Your task to perform on an android device: open app "LiveIn - Share Your Moment" (install if not already installed) and enter user name: "certifies@gmail.com" and password: "compartmented" Image 0: 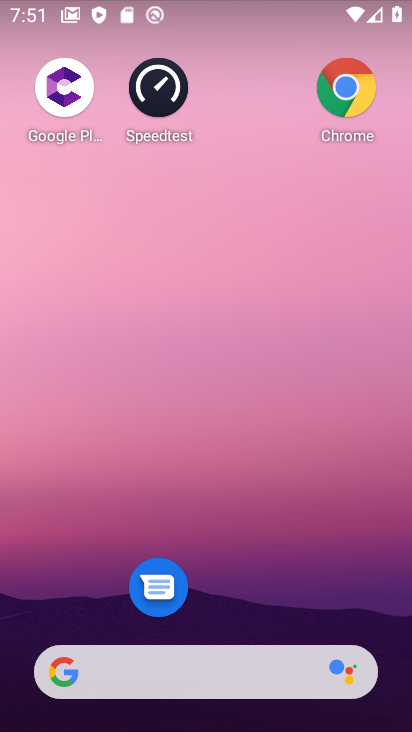
Step 0: drag from (266, 444) to (283, 125)
Your task to perform on an android device: open app "LiveIn - Share Your Moment" (install if not already installed) and enter user name: "certifies@gmail.com" and password: "compartmented" Image 1: 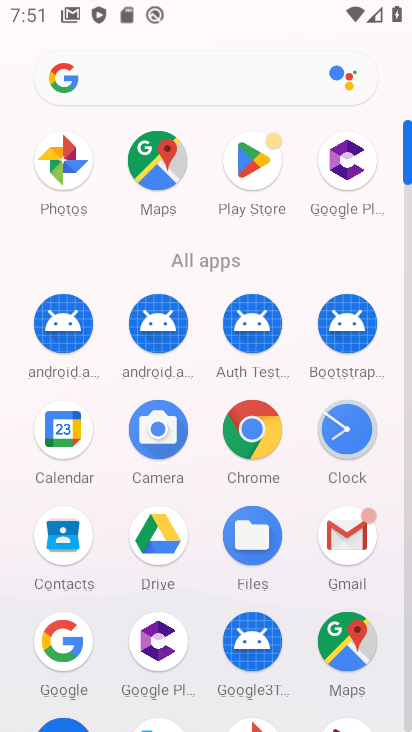
Step 1: click (251, 159)
Your task to perform on an android device: open app "LiveIn - Share Your Moment" (install if not already installed) and enter user name: "certifies@gmail.com" and password: "compartmented" Image 2: 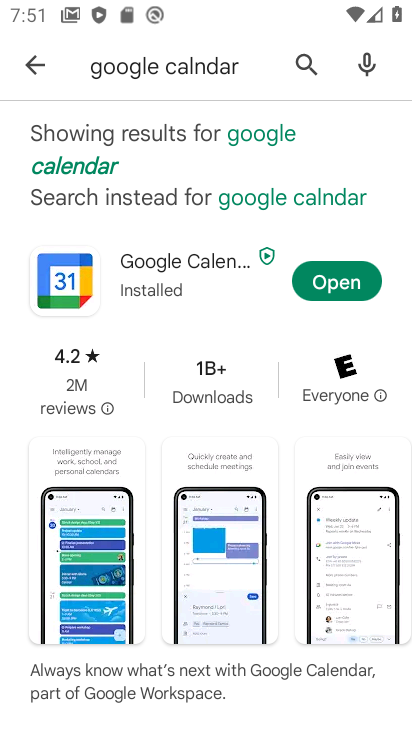
Step 2: click (313, 68)
Your task to perform on an android device: open app "LiveIn - Share Your Moment" (install if not already installed) and enter user name: "certifies@gmail.com" and password: "compartmented" Image 3: 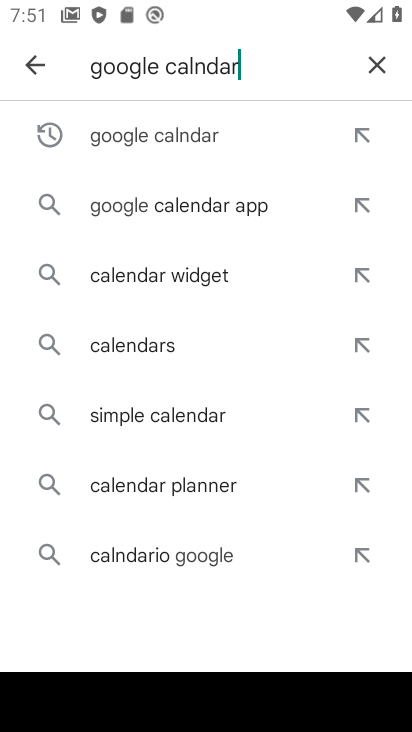
Step 3: click (369, 62)
Your task to perform on an android device: open app "LiveIn - Share Your Moment" (install if not already installed) and enter user name: "certifies@gmail.com" and password: "compartmented" Image 4: 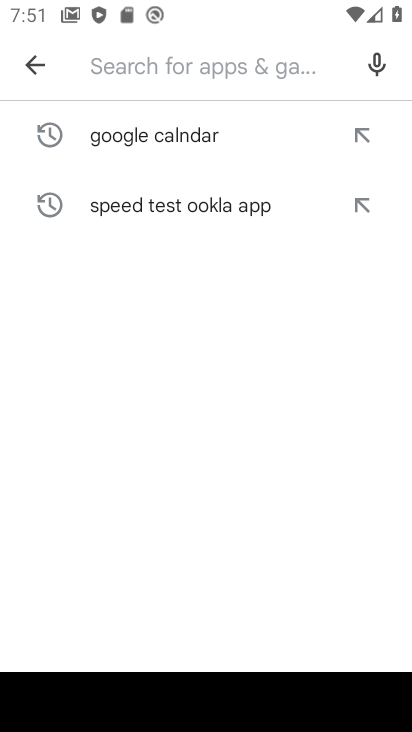
Step 4: type "livein"
Your task to perform on an android device: open app "LiveIn - Share Your Moment" (install if not already installed) and enter user name: "certifies@gmail.com" and password: "compartmented" Image 5: 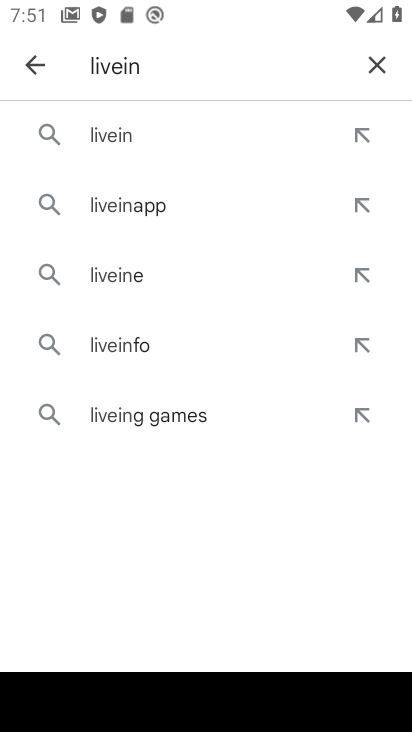
Step 5: click (219, 127)
Your task to perform on an android device: open app "LiveIn - Share Your Moment" (install if not already installed) and enter user name: "certifies@gmail.com" and password: "compartmented" Image 6: 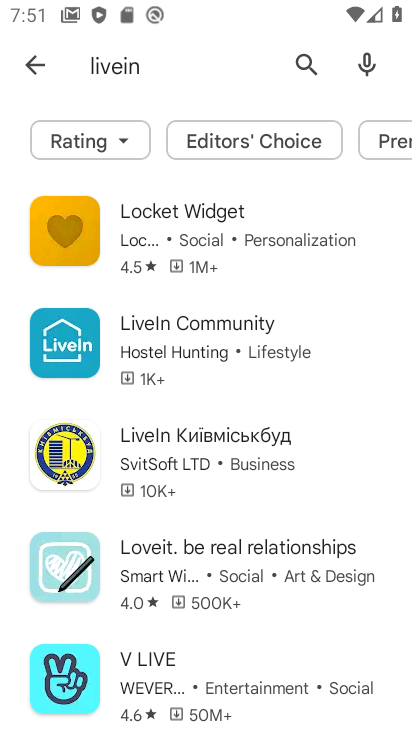
Step 6: click (236, 328)
Your task to perform on an android device: open app "LiveIn - Share Your Moment" (install if not already installed) and enter user name: "certifies@gmail.com" and password: "compartmented" Image 7: 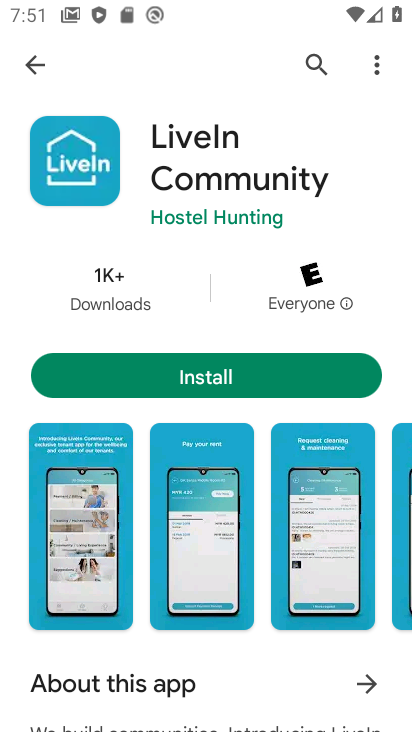
Step 7: click (171, 363)
Your task to perform on an android device: open app "LiveIn - Share Your Moment" (install if not already installed) and enter user name: "certifies@gmail.com" and password: "compartmented" Image 8: 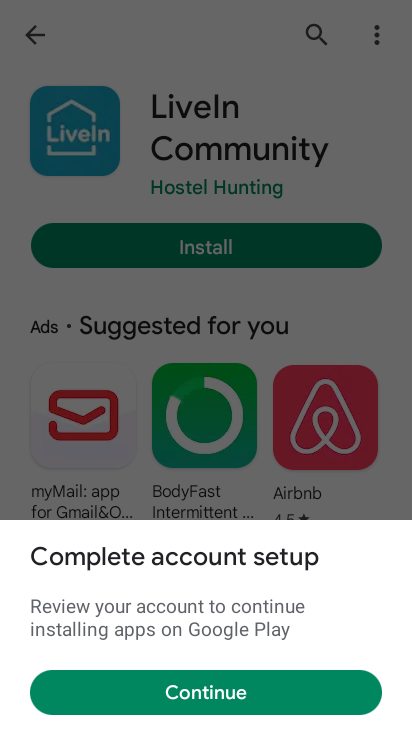
Step 8: click (101, 677)
Your task to perform on an android device: open app "LiveIn - Share Your Moment" (install if not already installed) and enter user name: "certifies@gmail.com" and password: "compartmented" Image 9: 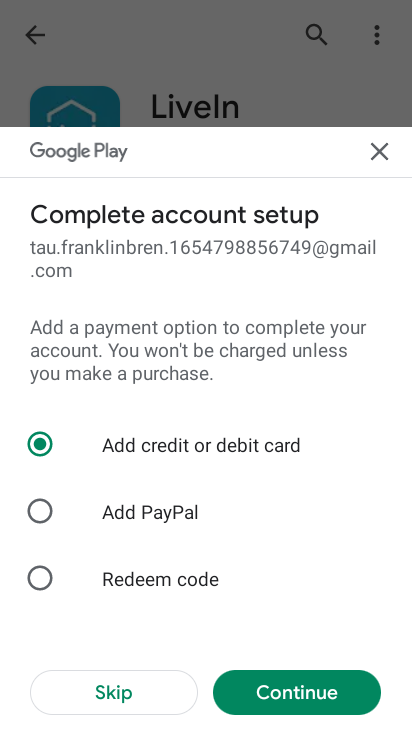
Step 9: click (118, 696)
Your task to perform on an android device: open app "LiveIn - Share Your Moment" (install if not already installed) and enter user name: "certifies@gmail.com" and password: "compartmented" Image 10: 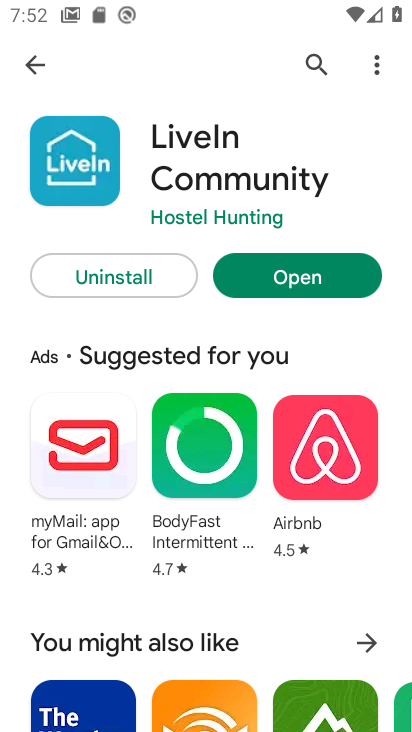
Step 10: click (252, 253)
Your task to perform on an android device: open app "LiveIn - Share Your Moment" (install if not already installed) and enter user name: "certifies@gmail.com" and password: "compartmented" Image 11: 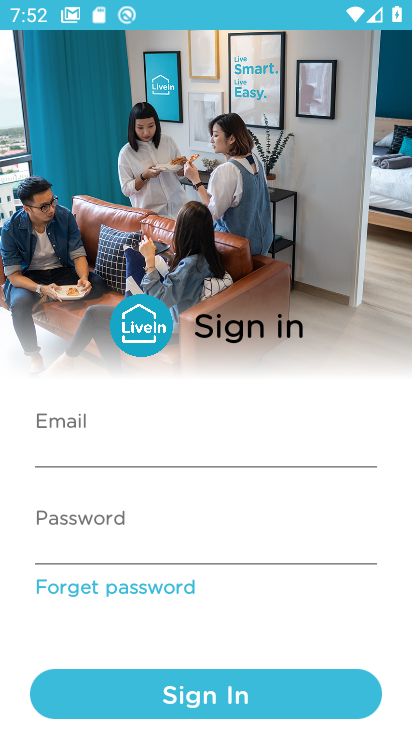
Step 11: click (122, 465)
Your task to perform on an android device: open app "LiveIn - Share Your Moment" (install if not already installed) and enter user name: "certifies@gmail.com" and password: "compartmented" Image 12: 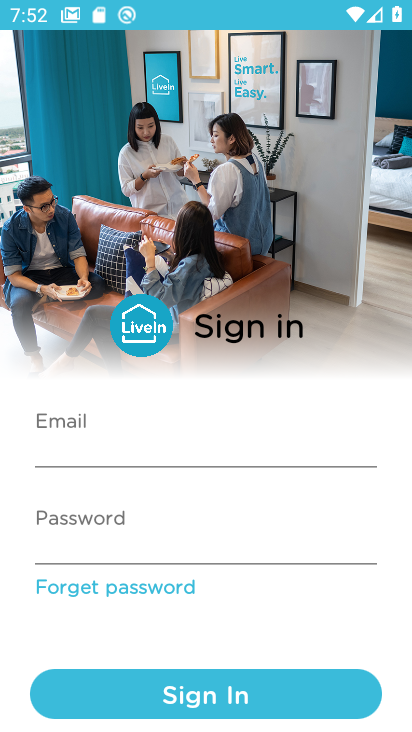
Step 12: click (125, 463)
Your task to perform on an android device: open app "LiveIn - Share Your Moment" (install if not already installed) and enter user name: "certifies@gmail.com" and password: "compartmented" Image 13: 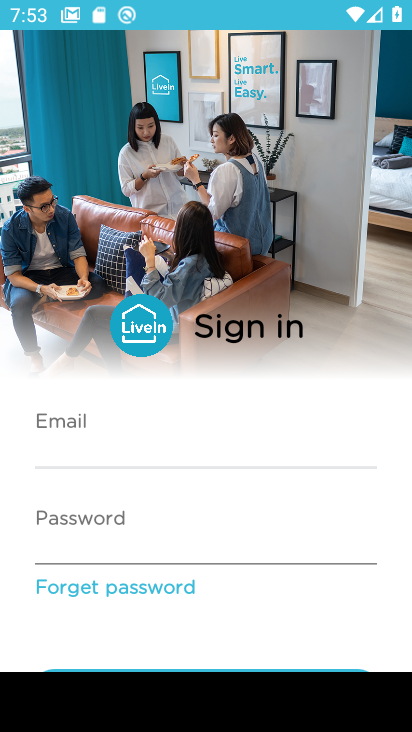
Step 13: click (101, 449)
Your task to perform on an android device: open app "LiveIn - Share Your Moment" (install if not already installed) and enter user name: "certifies@gmail.com" and password: "compartmented" Image 14: 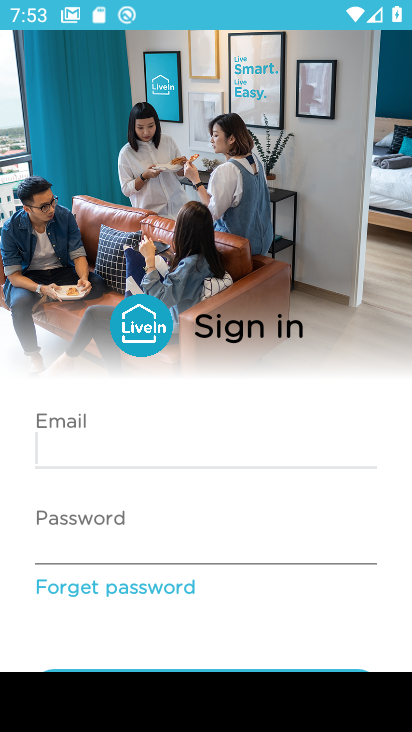
Step 14: type "certifies@gmail.com"
Your task to perform on an android device: open app "LiveIn - Share Your Moment" (install if not already installed) and enter user name: "certifies@gmail.com" and password: "compartmented" Image 15: 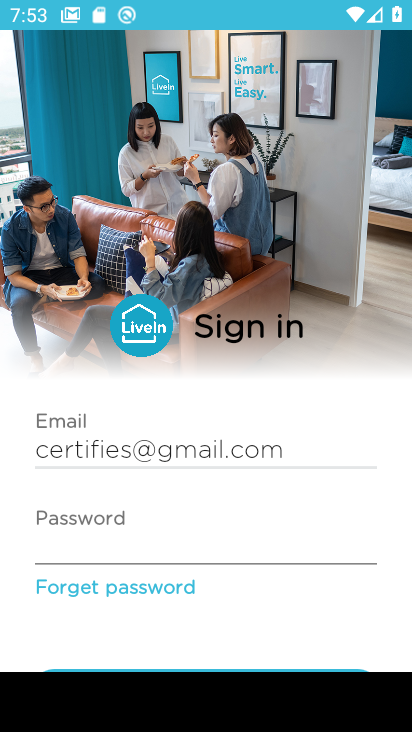
Step 15: click (110, 554)
Your task to perform on an android device: open app "LiveIn - Share Your Moment" (install if not already installed) and enter user name: "certifies@gmail.com" and password: "compartmented" Image 16: 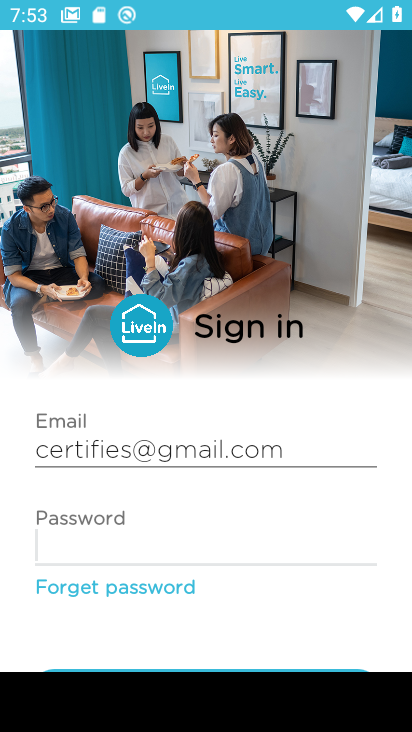
Step 16: type "compartmented"
Your task to perform on an android device: open app "LiveIn - Share Your Moment" (install if not already installed) and enter user name: "certifies@gmail.com" and password: "compartmented" Image 17: 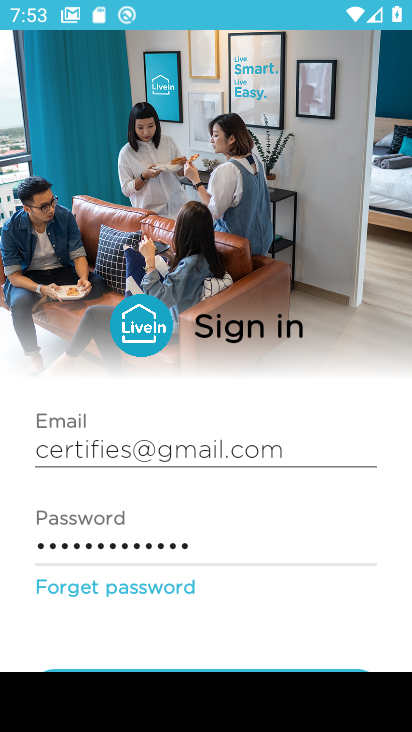
Step 17: drag from (212, 630) to (233, 298)
Your task to perform on an android device: open app "LiveIn - Share Your Moment" (install if not already installed) and enter user name: "certifies@gmail.com" and password: "compartmented" Image 18: 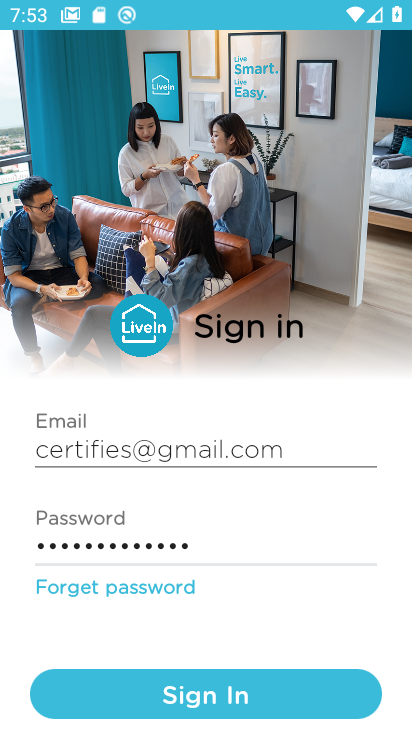
Step 18: click (206, 695)
Your task to perform on an android device: open app "LiveIn - Share Your Moment" (install if not already installed) and enter user name: "certifies@gmail.com" and password: "compartmented" Image 19: 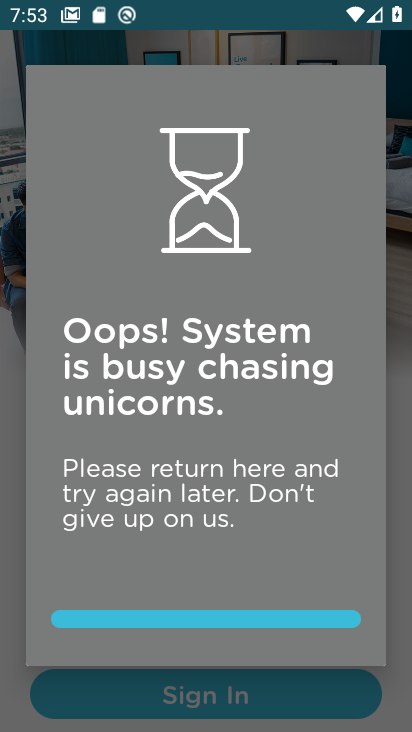
Step 19: task complete